Your task to perform on an android device: Open display settings Image 0: 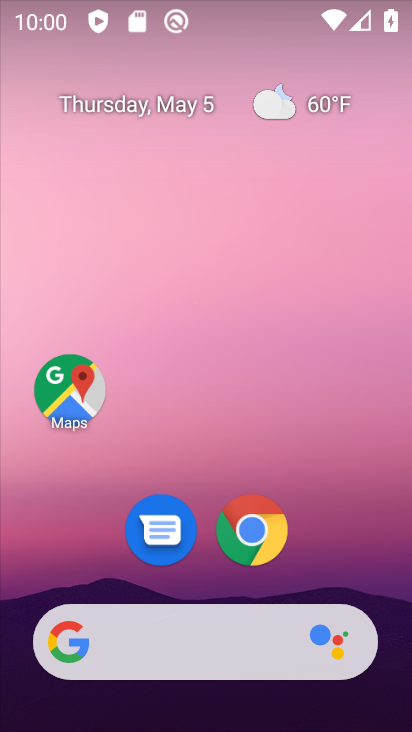
Step 0: drag from (376, 590) to (180, 125)
Your task to perform on an android device: Open display settings Image 1: 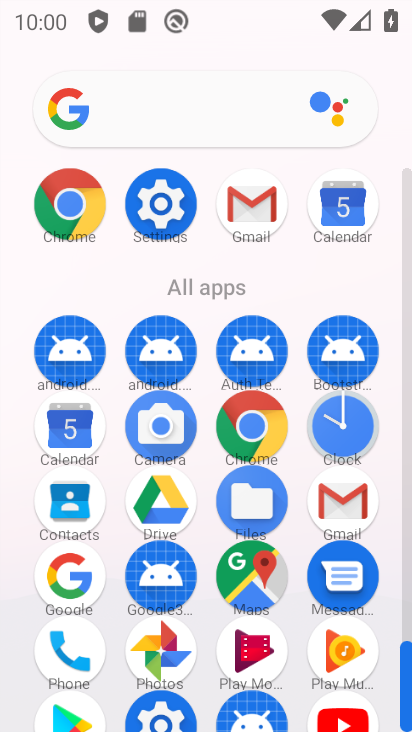
Step 1: click (161, 211)
Your task to perform on an android device: Open display settings Image 2: 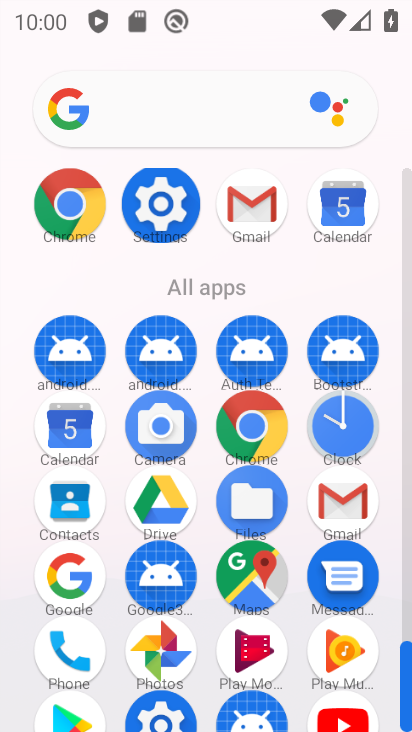
Step 2: click (160, 210)
Your task to perform on an android device: Open display settings Image 3: 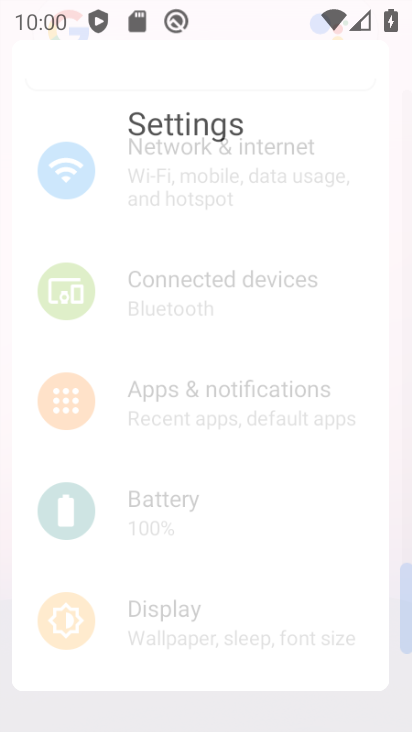
Step 3: click (160, 210)
Your task to perform on an android device: Open display settings Image 4: 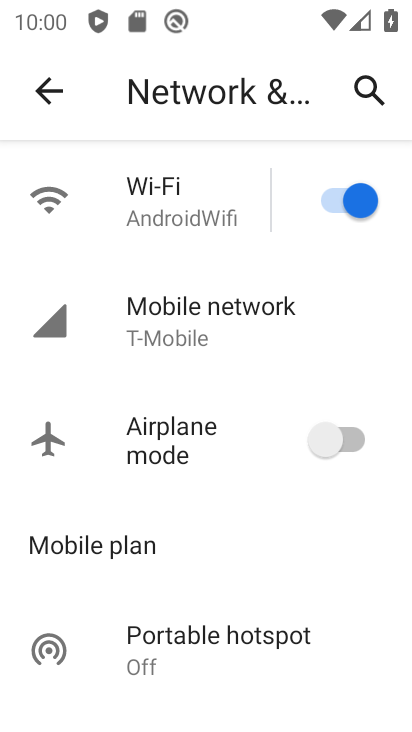
Step 4: click (48, 74)
Your task to perform on an android device: Open display settings Image 5: 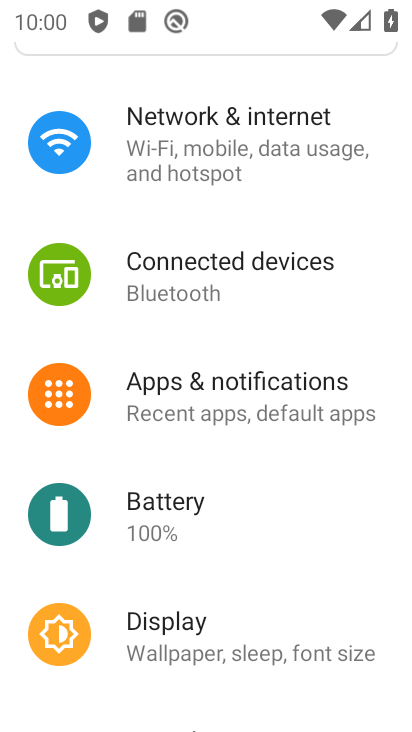
Step 5: click (174, 634)
Your task to perform on an android device: Open display settings Image 6: 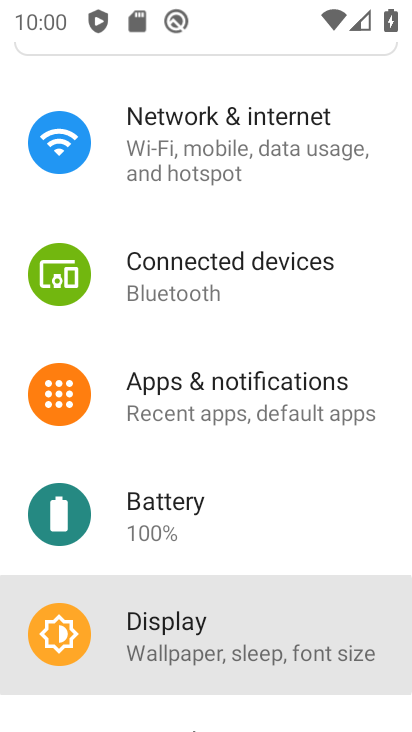
Step 6: click (173, 635)
Your task to perform on an android device: Open display settings Image 7: 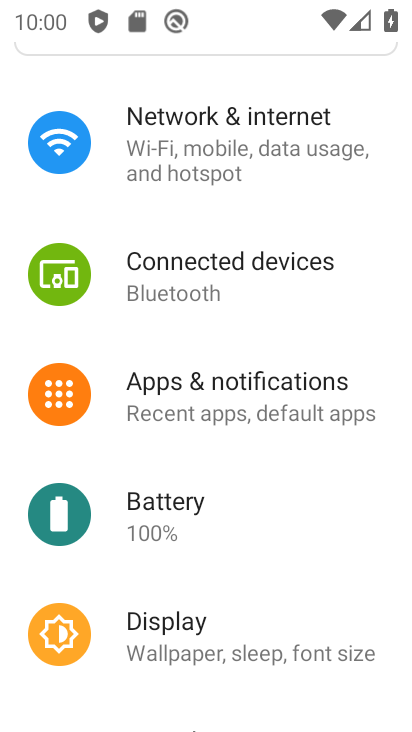
Step 7: click (176, 636)
Your task to perform on an android device: Open display settings Image 8: 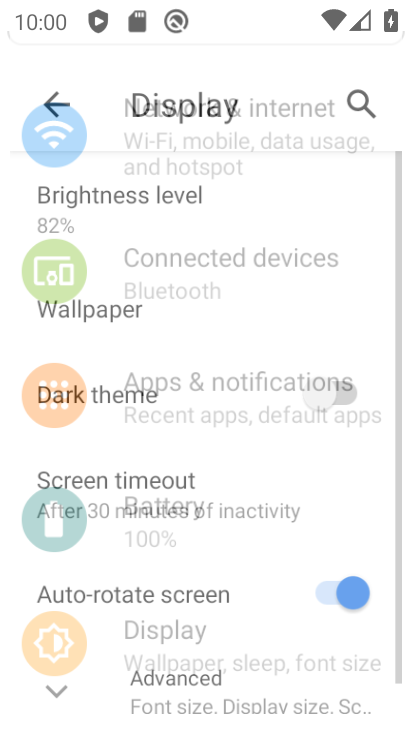
Step 8: click (180, 631)
Your task to perform on an android device: Open display settings Image 9: 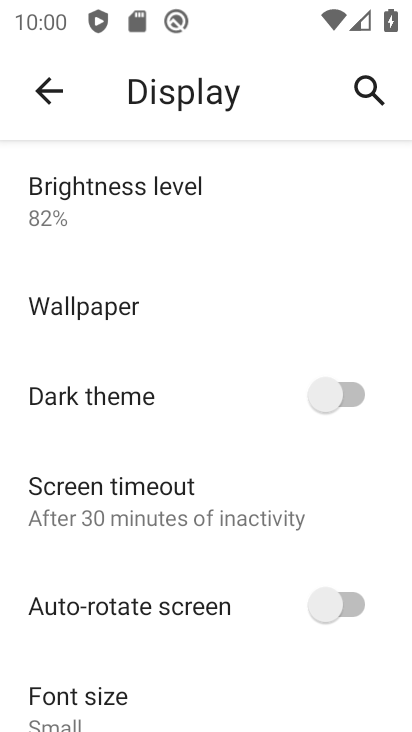
Step 9: task complete